Your task to perform on an android device: Open the calendar and show me this week's events? Image 0: 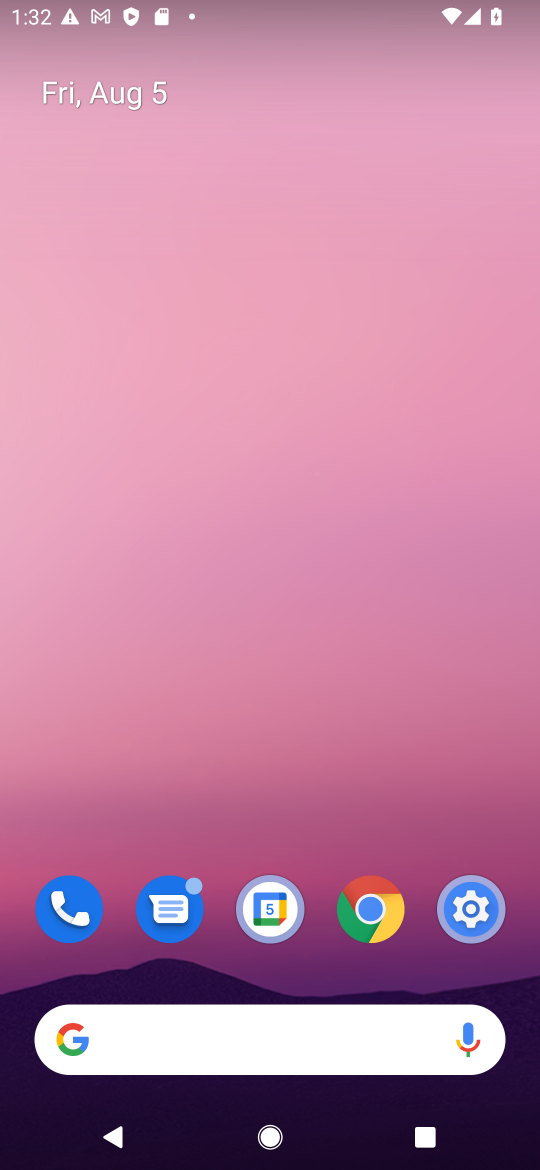
Step 0: click (268, 898)
Your task to perform on an android device: Open the calendar and show me this week's events? Image 1: 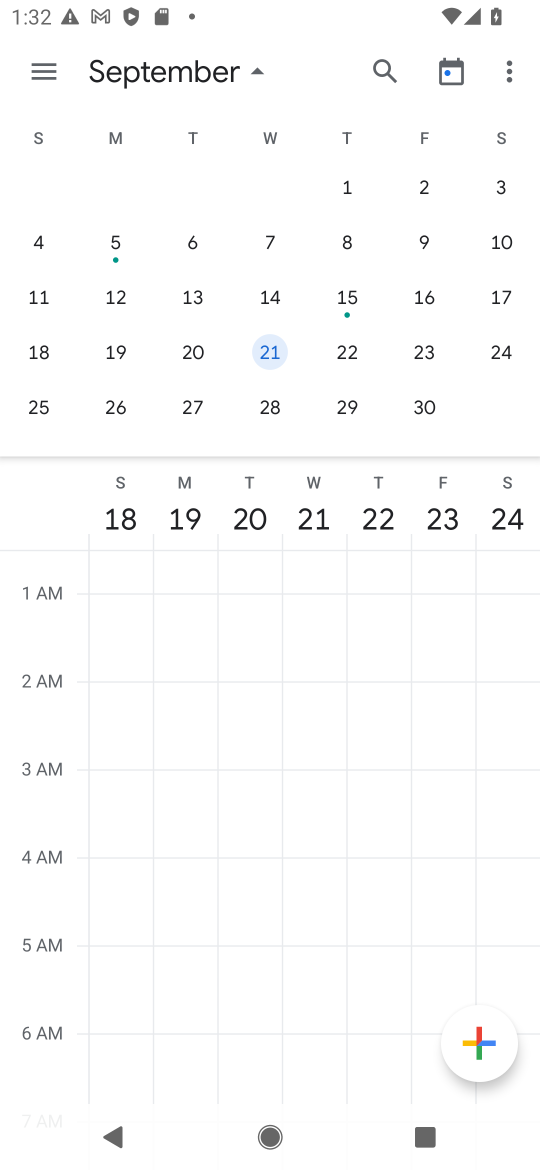
Step 1: task complete